Your task to perform on an android device: change the clock style Image 0: 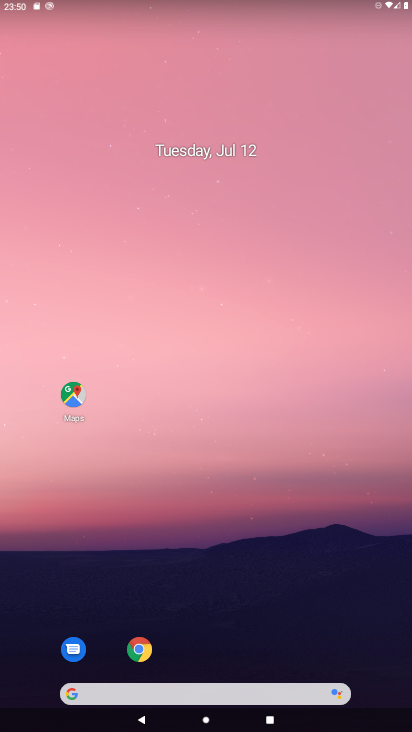
Step 0: drag from (366, 658) to (339, 147)
Your task to perform on an android device: change the clock style Image 1: 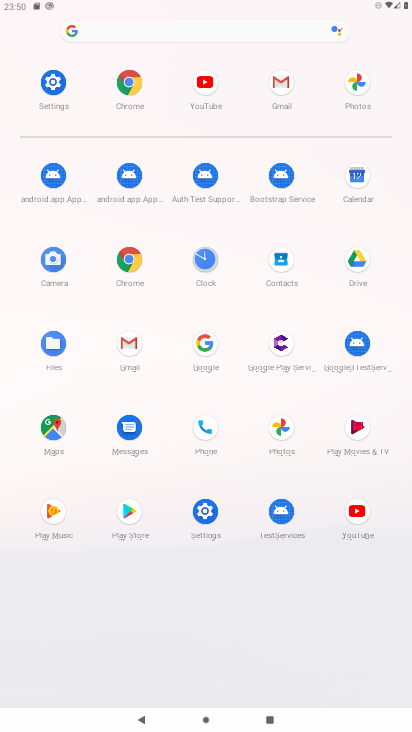
Step 1: click (203, 260)
Your task to perform on an android device: change the clock style Image 2: 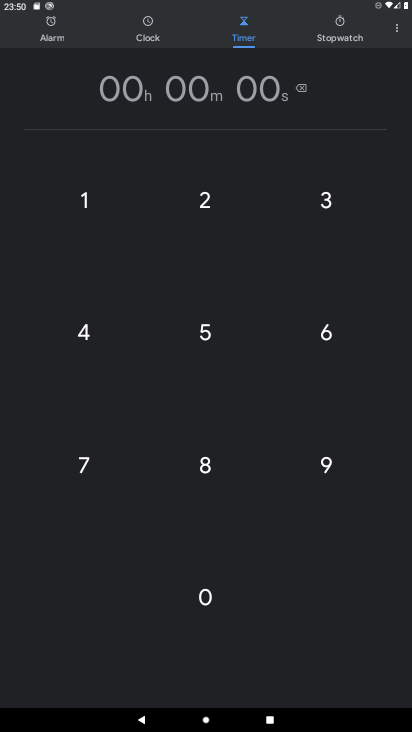
Step 2: click (396, 35)
Your task to perform on an android device: change the clock style Image 3: 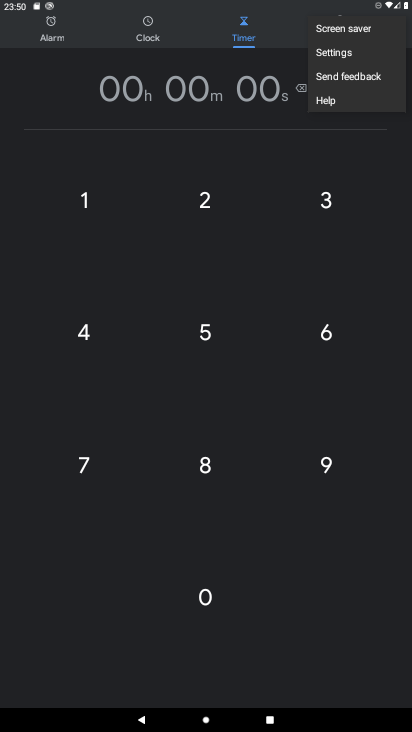
Step 3: click (330, 48)
Your task to perform on an android device: change the clock style Image 4: 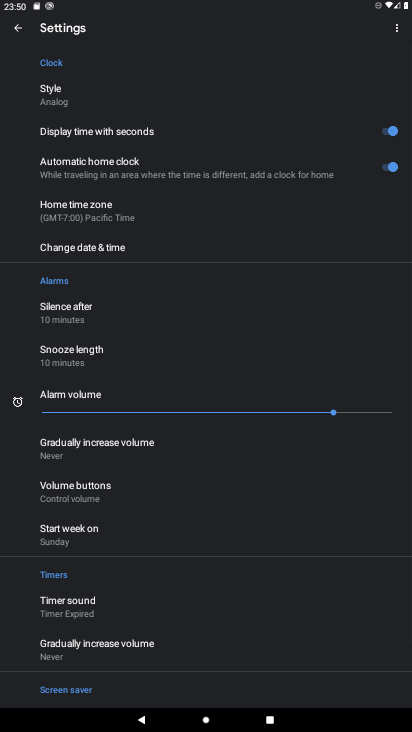
Step 4: click (48, 90)
Your task to perform on an android device: change the clock style Image 5: 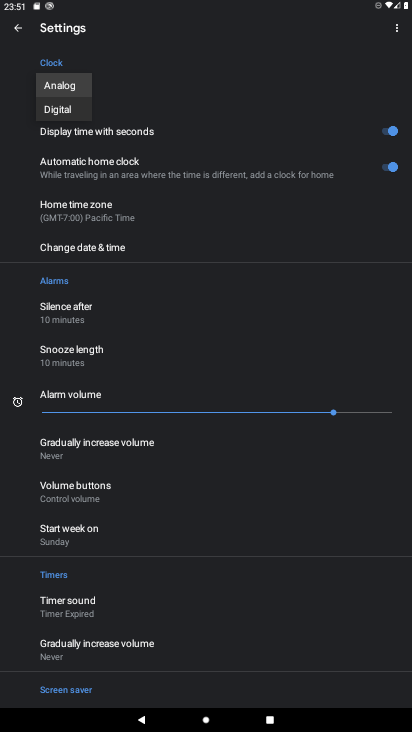
Step 5: click (63, 112)
Your task to perform on an android device: change the clock style Image 6: 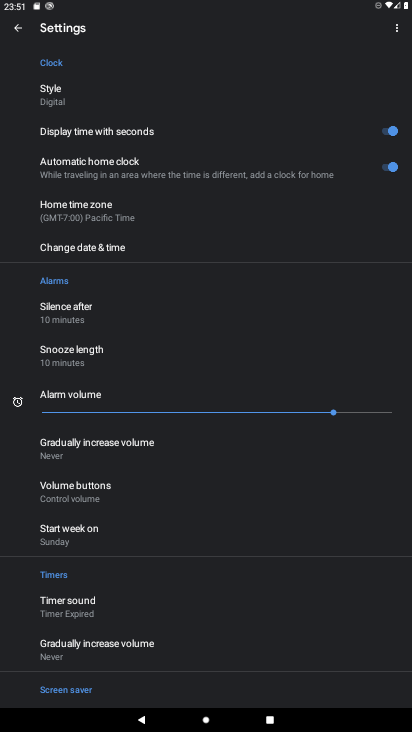
Step 6: task complete